Your task to perform on an android device: turn off smart reply in the gmail app Image 0: 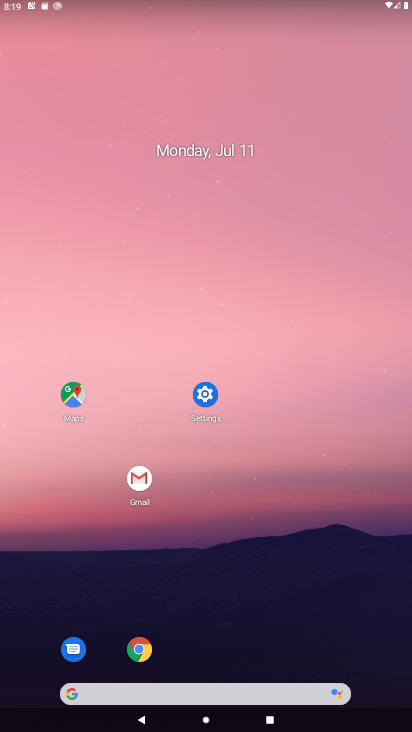
Step 0: click (140, 475)
Your task to perform on an android device: turn off smart reply in the gmail app Image 1: 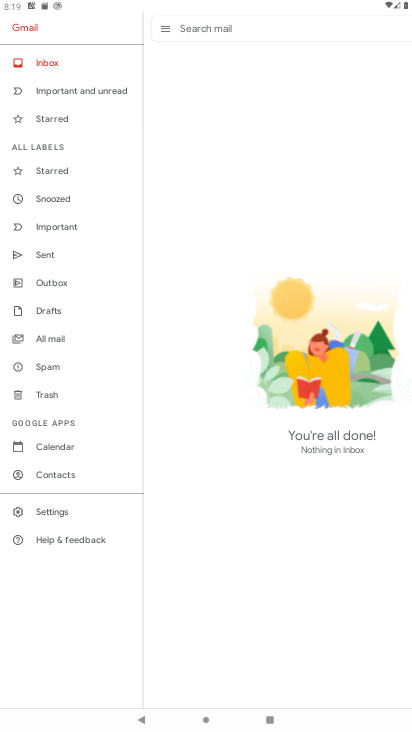
Step 1: click (44, 506)
Your task to perform on an android device: turn off smart reply in the gmail app Image 2: 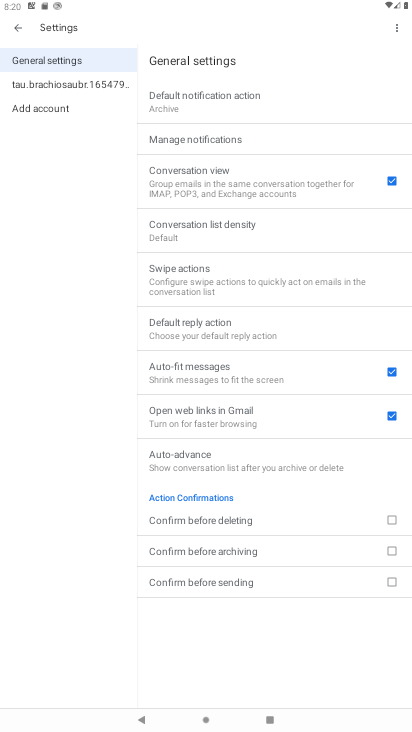
Step 2: click (82, 79)
Your task to perform on an android device: turn off smart reply in the gmail app Image 3: 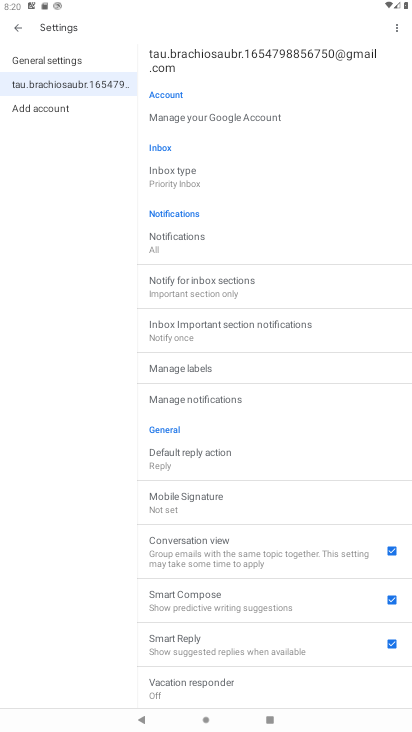
Step 3: click (199, 634)
Your task to perform on an android device: turn off smart reply in the gmail app Image 4: 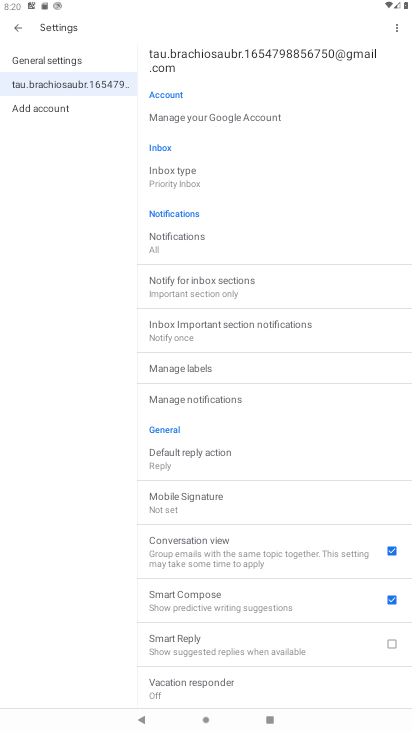
Step 4: click (185, 641)
Your task to perform on an android device: turn off smart reply in the gmail app Image 5: 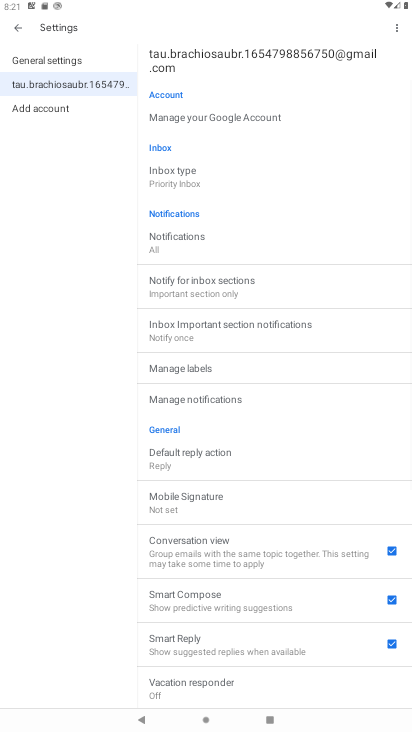
Step 5: click (185, 640)
Your task to perform on an android device: turn off smart reply in the gmail app Image 6: 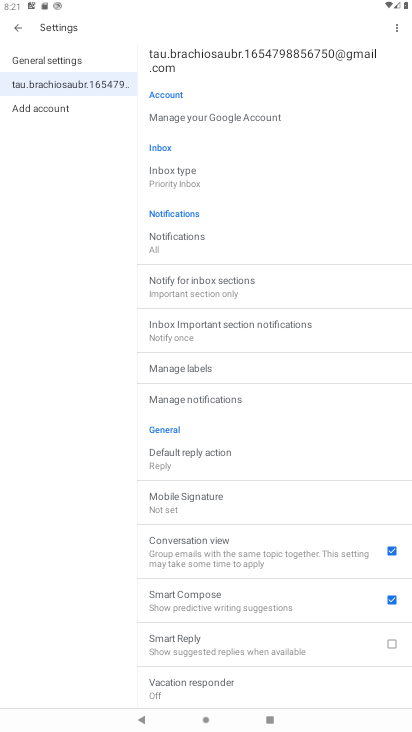
Step 6: task complete